Your task to perform on an android device: turn on location history Image 0: 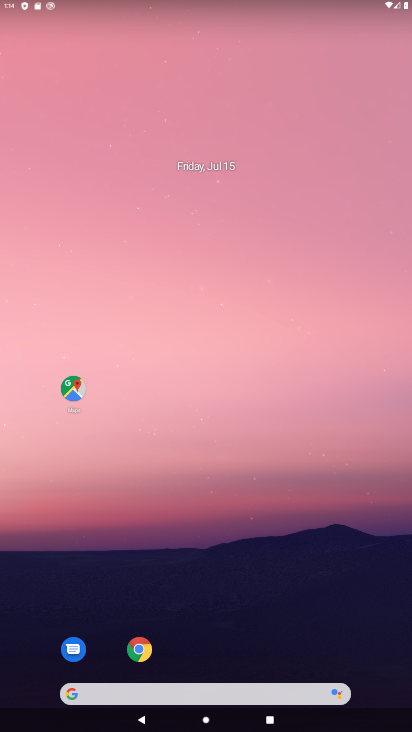
Step 0: drag from (204, 698) to (156, 107)
Your task to perform on an android device: turn on location history Image 1: 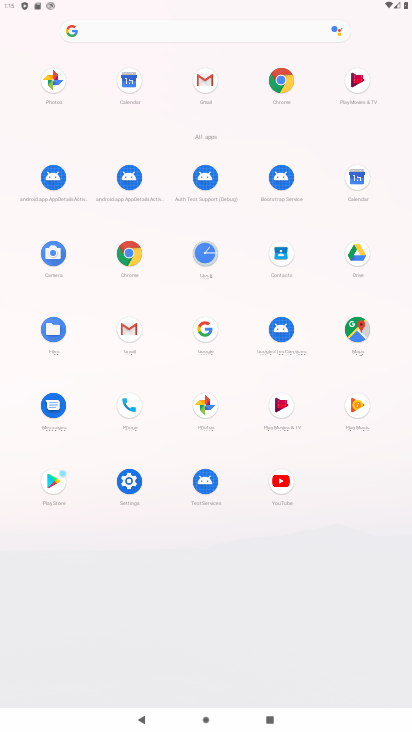
Step 1: click (130, 477)
Your task to perform on an android device: turn on location history Image 2: 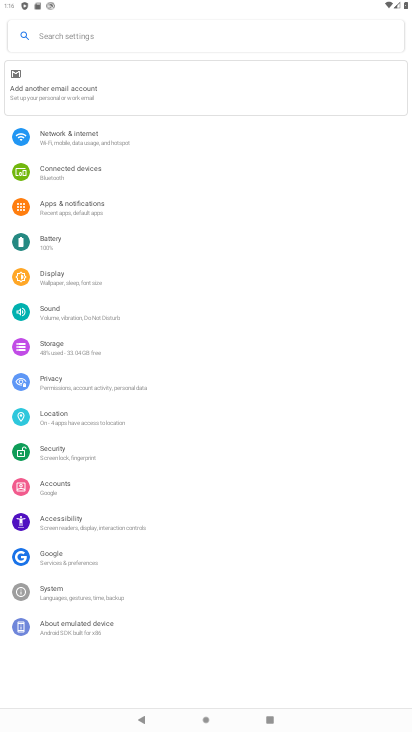
Step 2: click (46, 422)
Your task to perform on an android device: turn on location history Image 3: 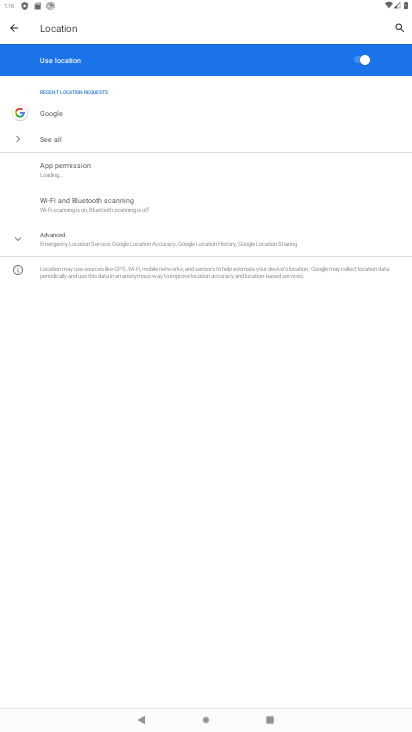
Step 3: click (153, 248)
Your task to perform on an android device: turn on location history Image 4: 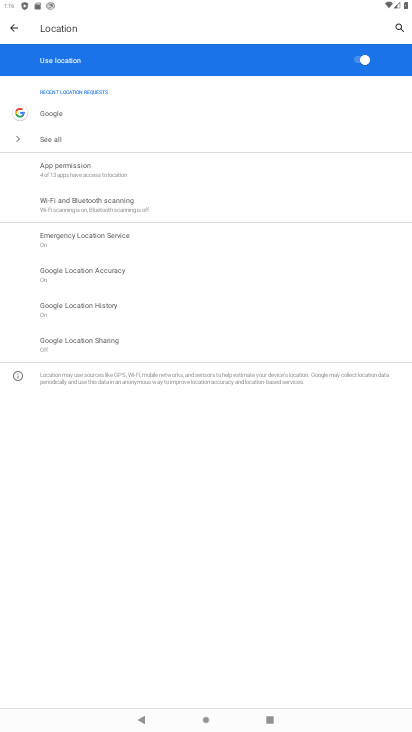
Step 4: click (116, 311)
Your task to perform on an android device: turn on location history Image 5: 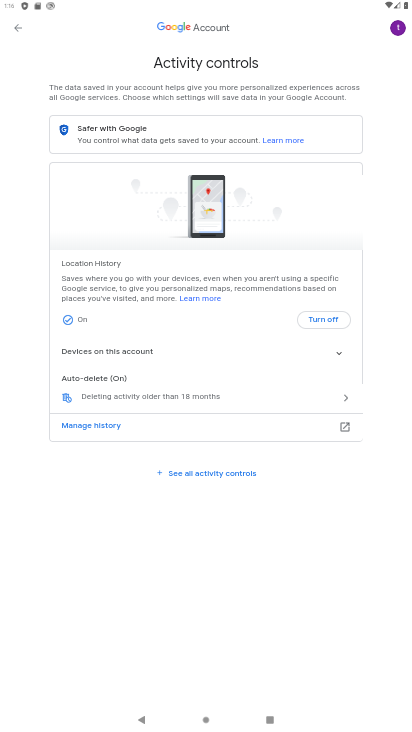
Step 5: task complete